Your task to perform on an android device: What's on my calendar today? Image 0: 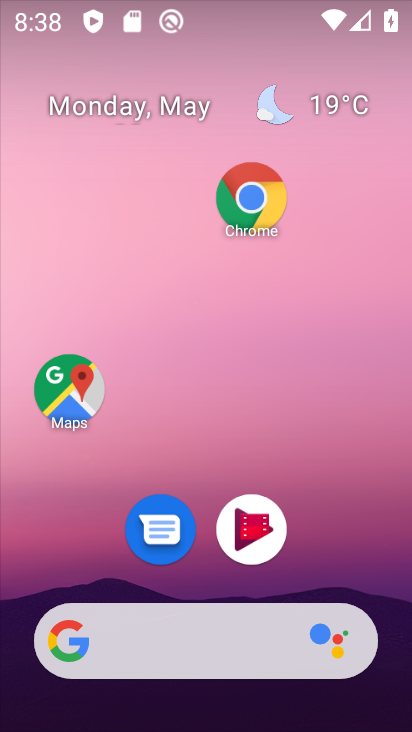
Step 0: click (253, 207)
Your task to perform on an android device: What's on my calendar today? Image 1: 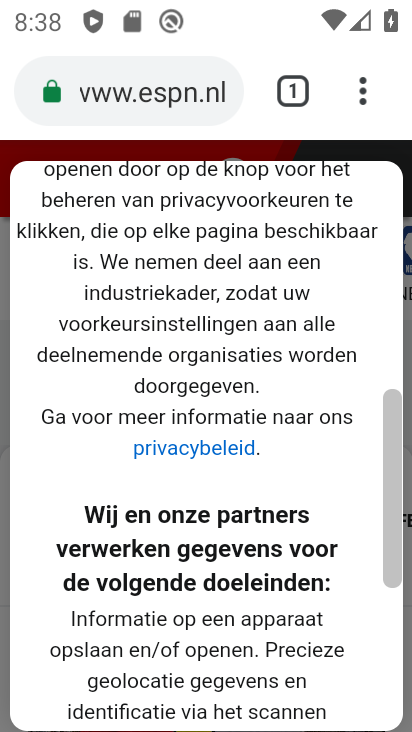
Step 1: press back button
Your task to perform on an android device: What's on my calendar today? Image 2: 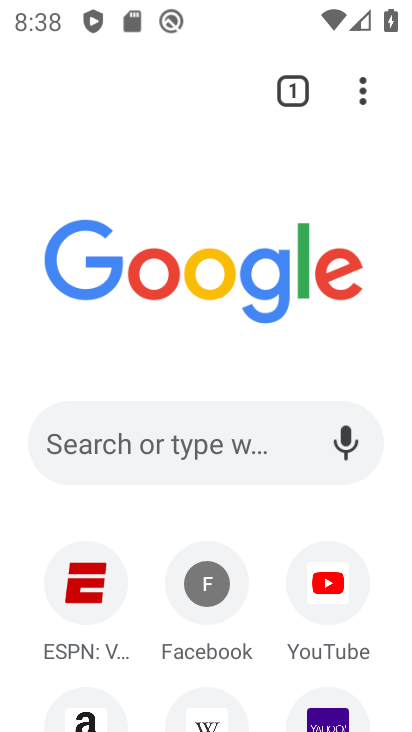
Step 2: drag from (285, 638) to (263, 446)
Your task to perform on an android device: What's on my calendar today? Image 3: 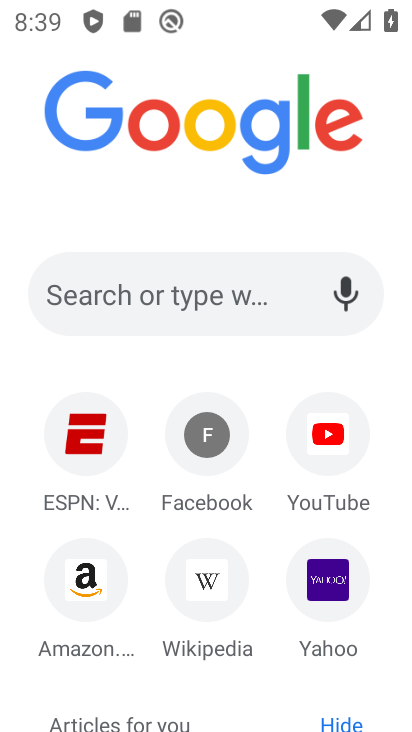
Step 3: click (168, 312)
Your task to perform on an android device: What's on my calendar today? Image 4: 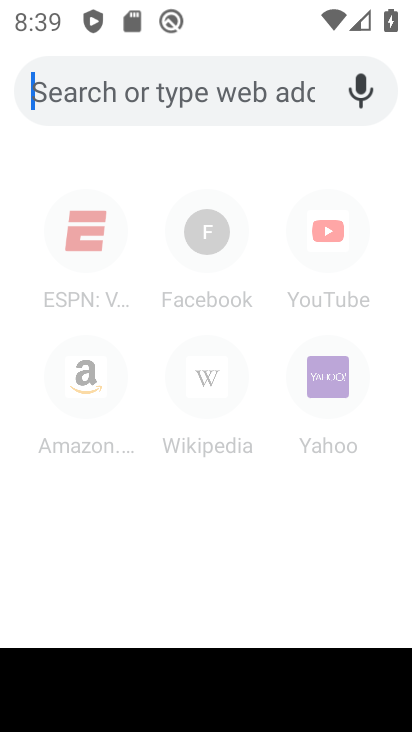
Step 4: type "www.ebay.com"
Your task to perform on an android device: What's on my calendar today? Image 5: 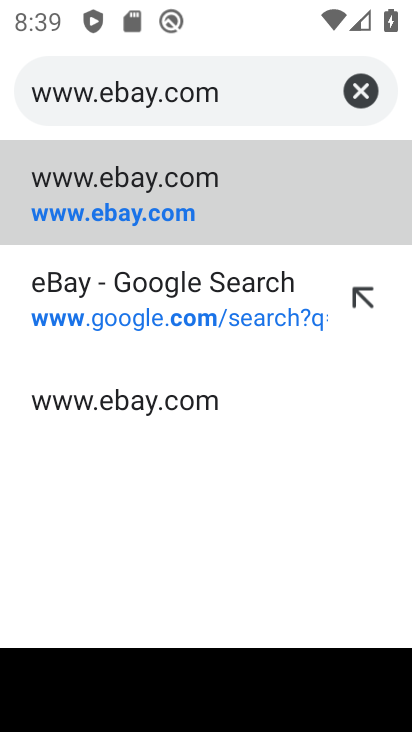
Step 5: click (124, 206)
Your task to perform on an android device: What's on my calendar today? Image 6: 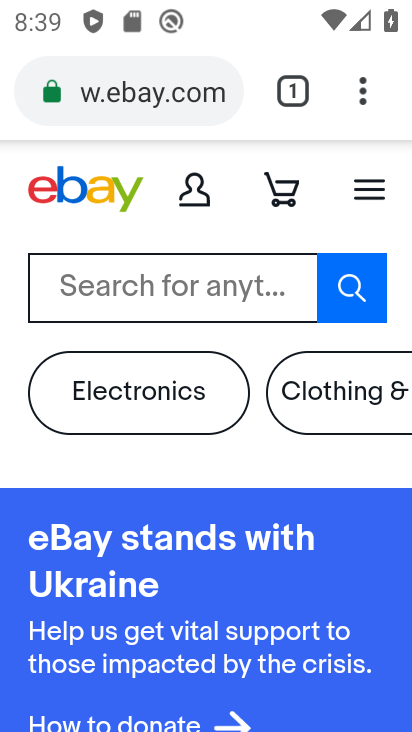
Step 6: task complete